Your task to perform on an android device: open the mobile data screen to see how much data has been used Image 0: 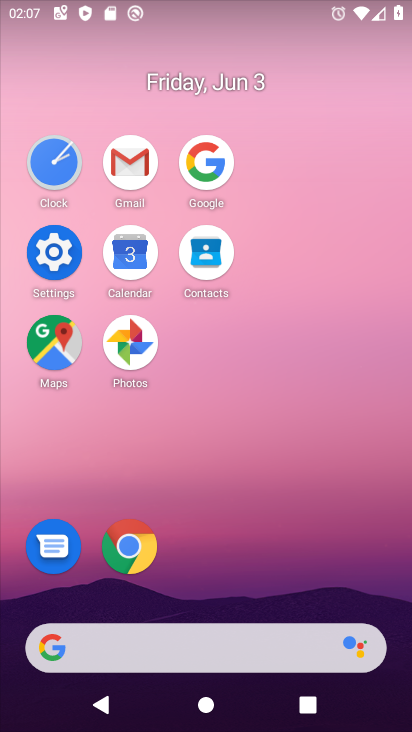
Step 0: click (69, 240)
Your task to perform on an android device: open the mobile data screen to see how much data has been used Image 1: 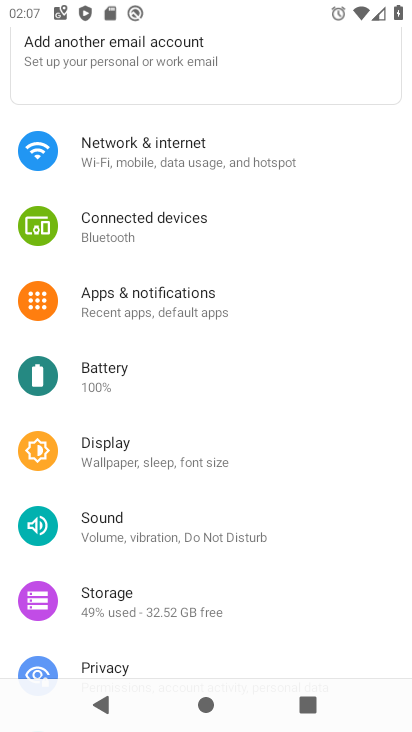
Step 1: click (245, 165)
Your task to perform on an android device: open the mobile data screen to see how much data has been used Image 2: 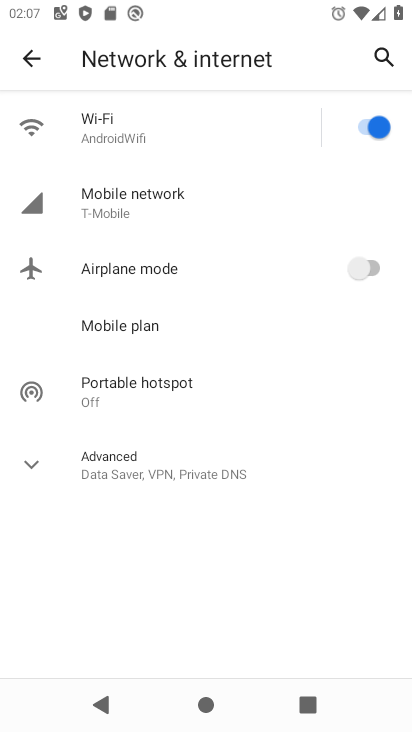
Step 2: click (191, 208)
Your task to perform on an android device: open the mobile data screen to see how much data has been used Image 3: 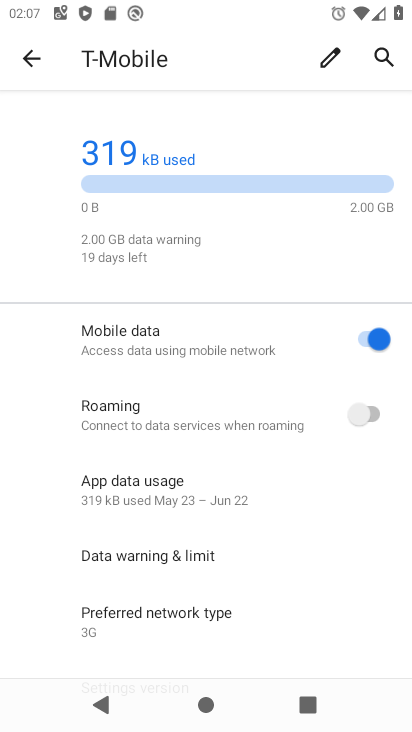
Step 3: task complete